Your task to perform on an android device: Go to network settings Image 0: 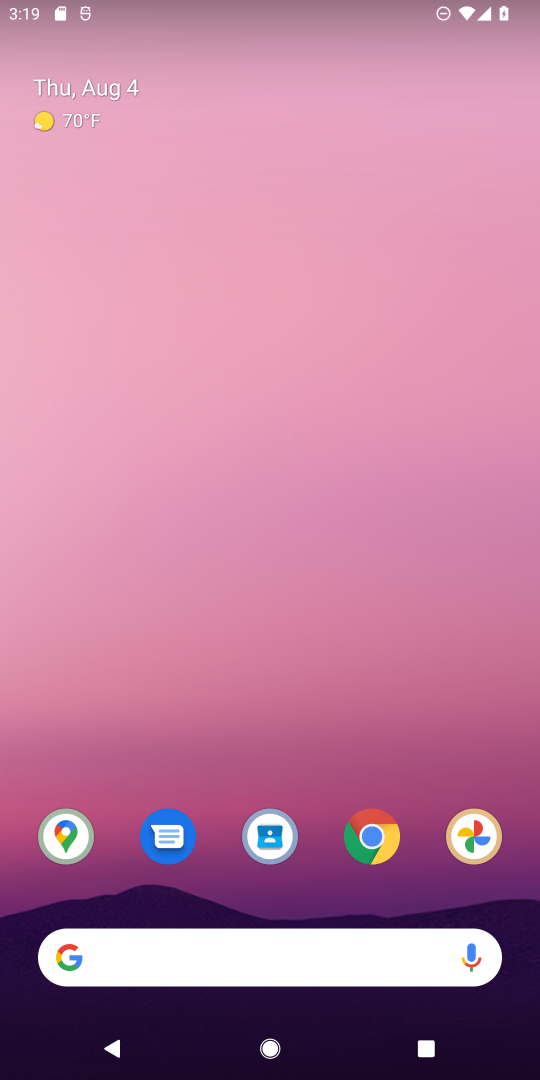
Step 0: drag from (61, 359) to (94, 5)
Your task to perform on an android device: Go to network settings Image 1: 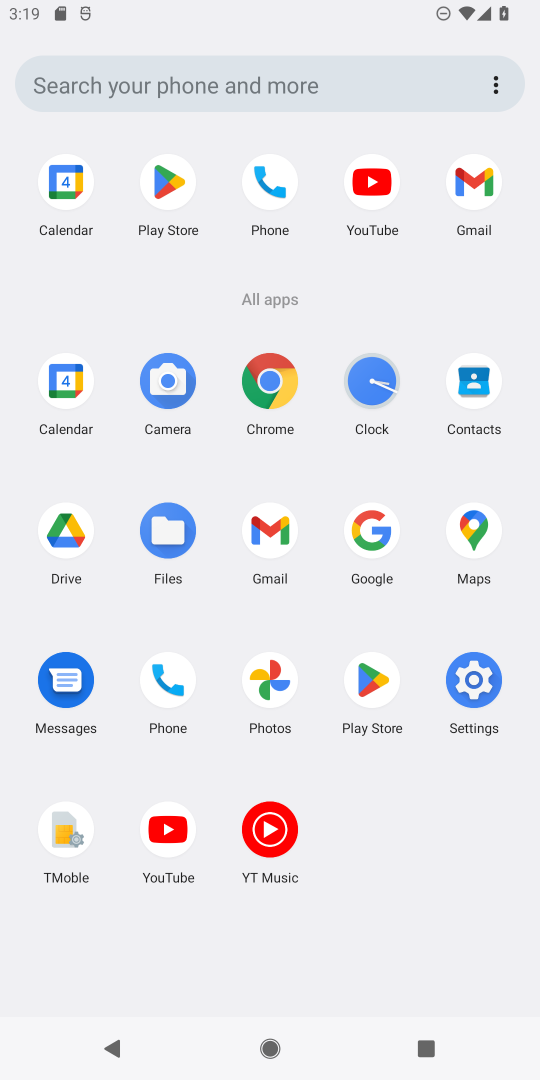
Step 1: click (493, 684)
Your task to perform on an android device: Go to network settings Image 2: 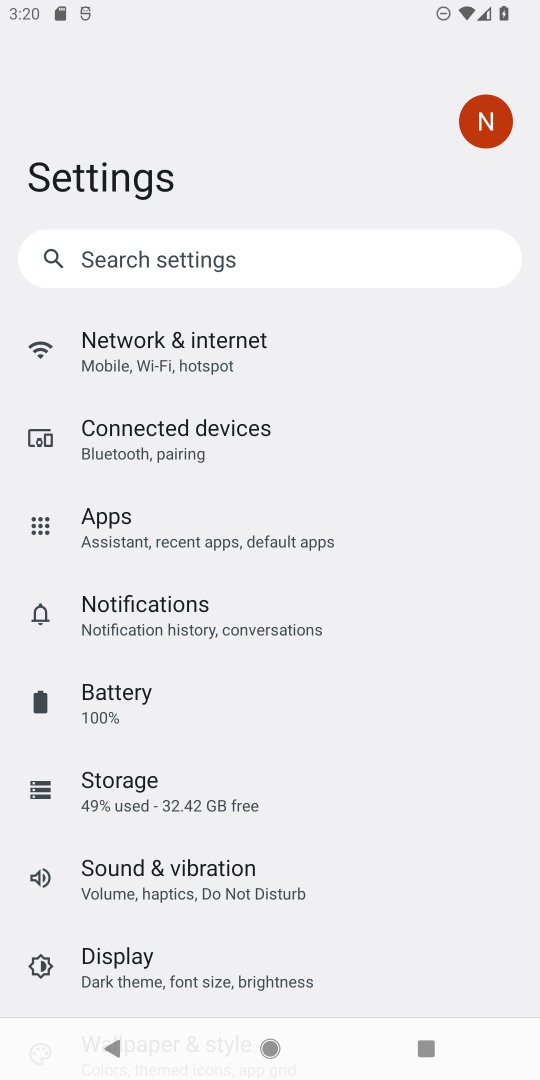
Step 2: click (190, 359)
Your task to perform on an android device: Go to network settings Image 3: 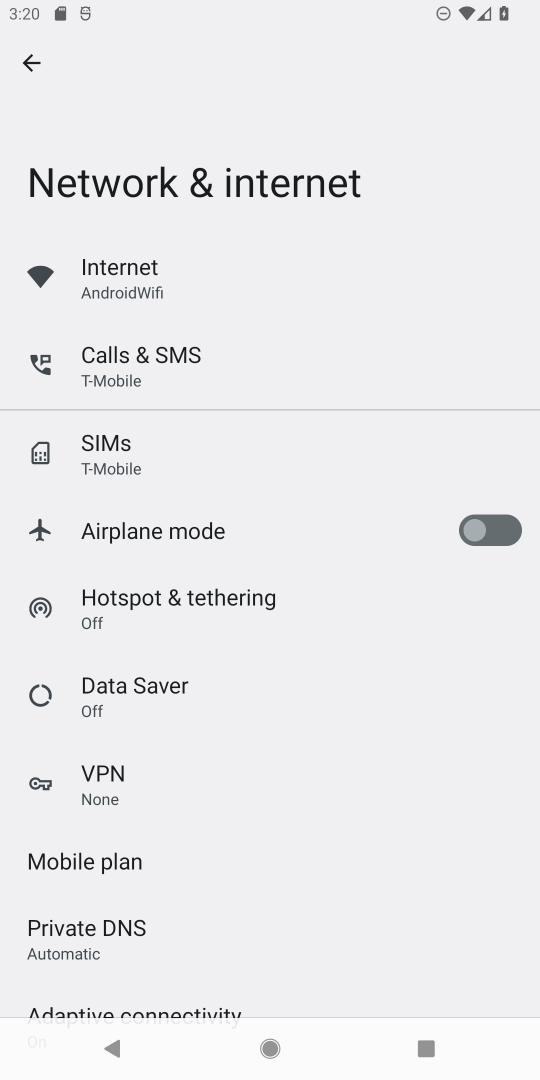
Step 3: task complete